Your task to perform on an android device: stop showing notifications on the lock screen Image 0: 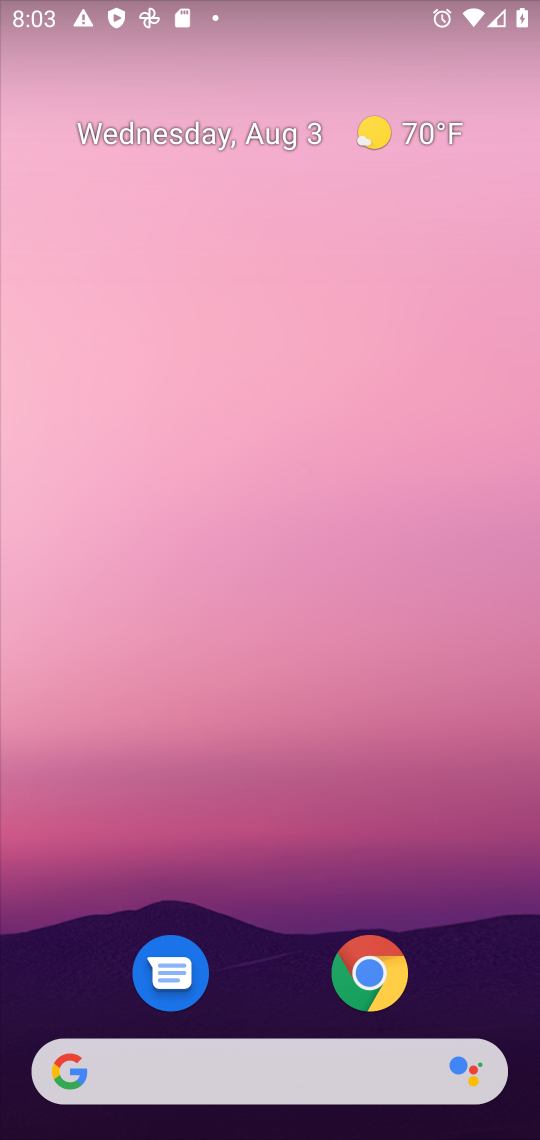
Step 0: drag from (212, 563) to (223, 174)
Your task to perform on an android device: stop showing notifications on the lock screen Image 1: 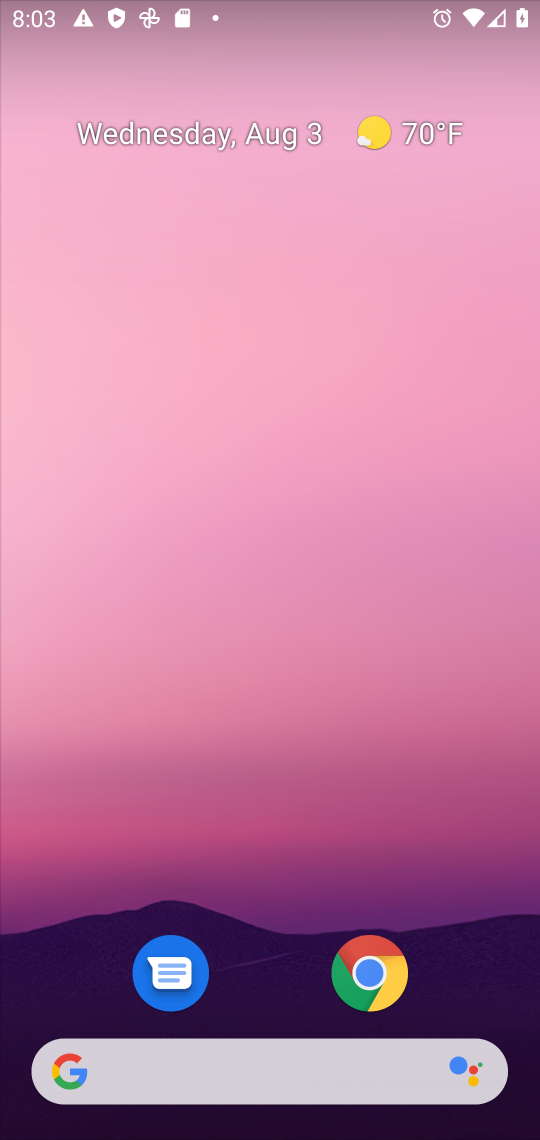
Step 1: drag from (246, 845) to (33, 88)
Your task to perform on an android device: stop showing notifications on the lock screen Image 2: 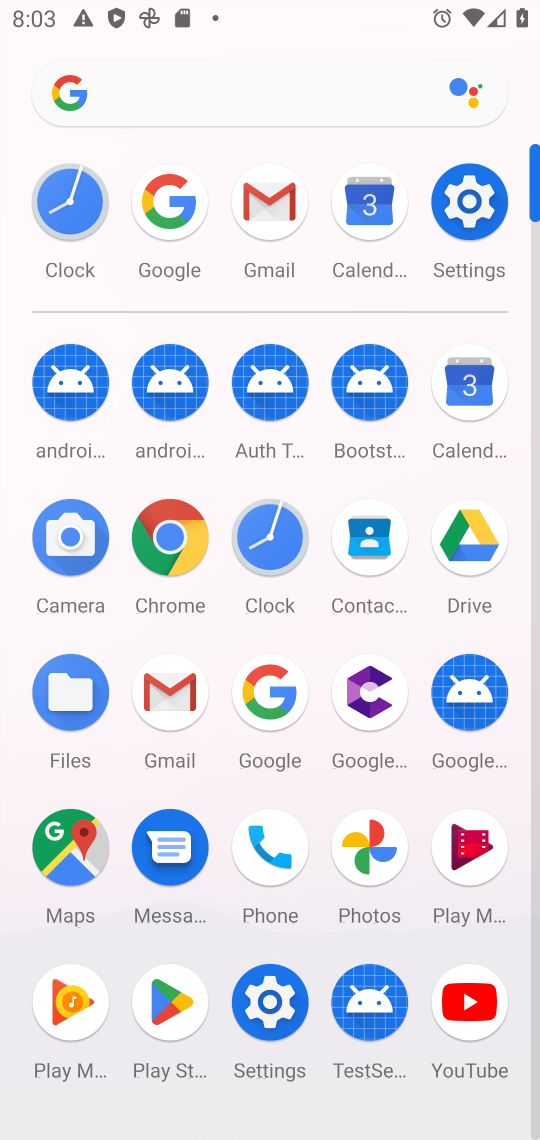
Step 2: click (463, 194)
Your task to perform on an android device: stop showing notifications on the lock screen Image 3: 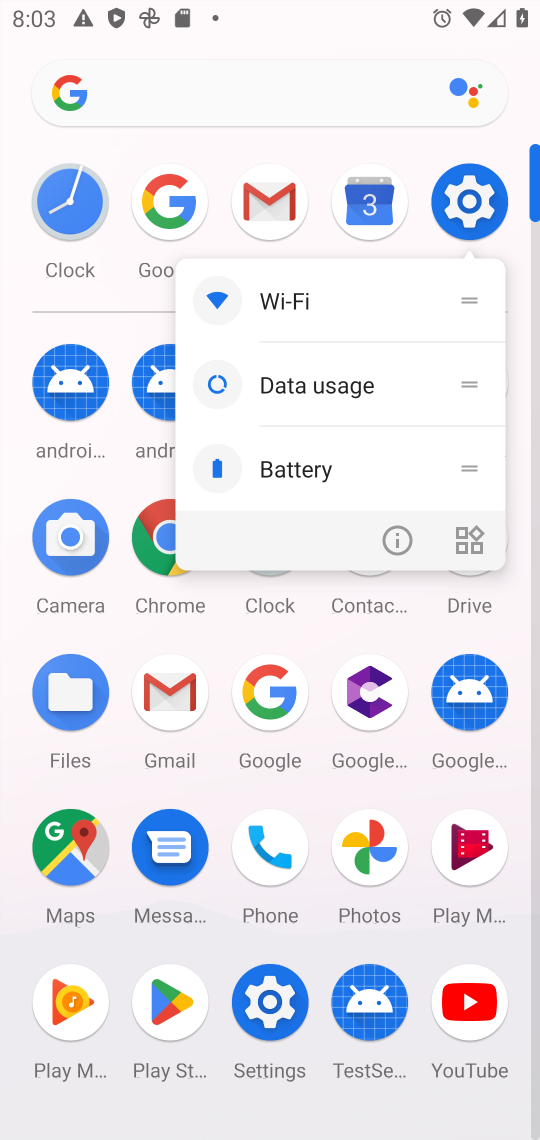
Step 3: click (461, 208)
Your task to perform on an android device: stop showing notifications on the lock screen Image 4: 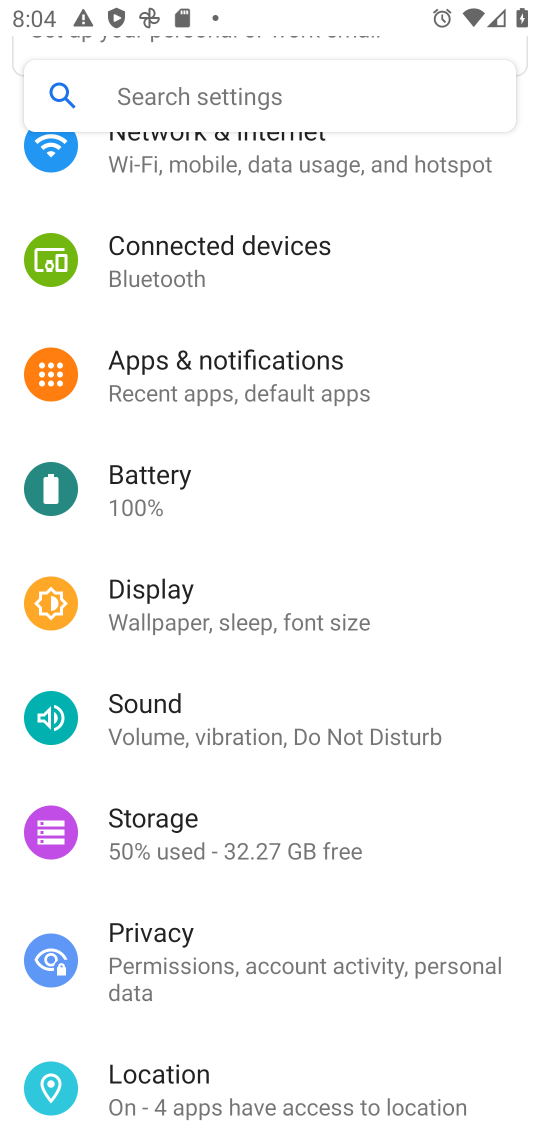
Step 4: click (309, 371)
Your task to perform on an android device: stop showing notifications on the lock screen Image 5: 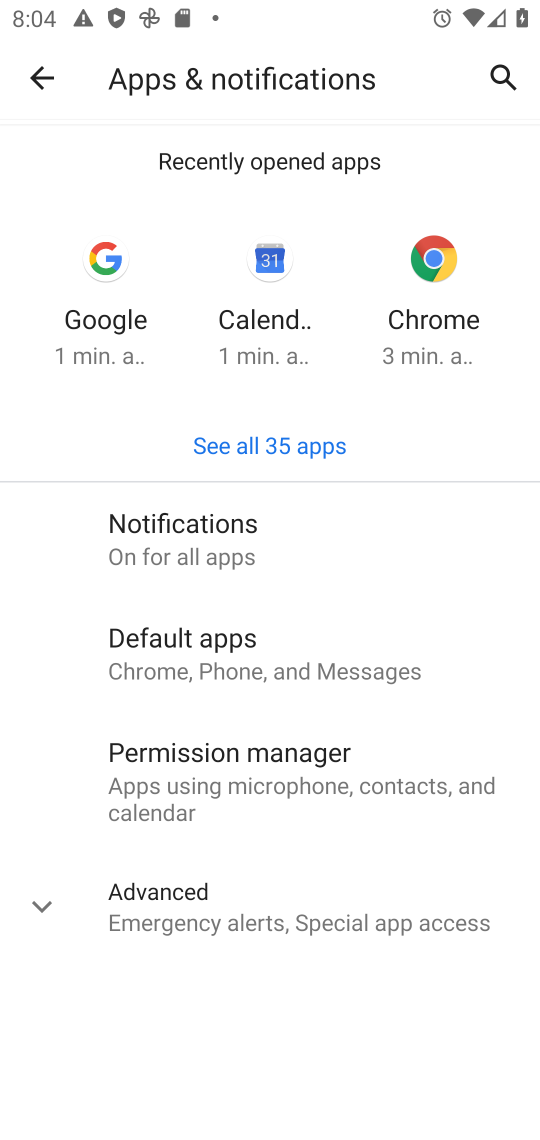
Step 5: click (186, 549)
Your task to perform on an android device: stop showing notifications on the lock screen Image 6: 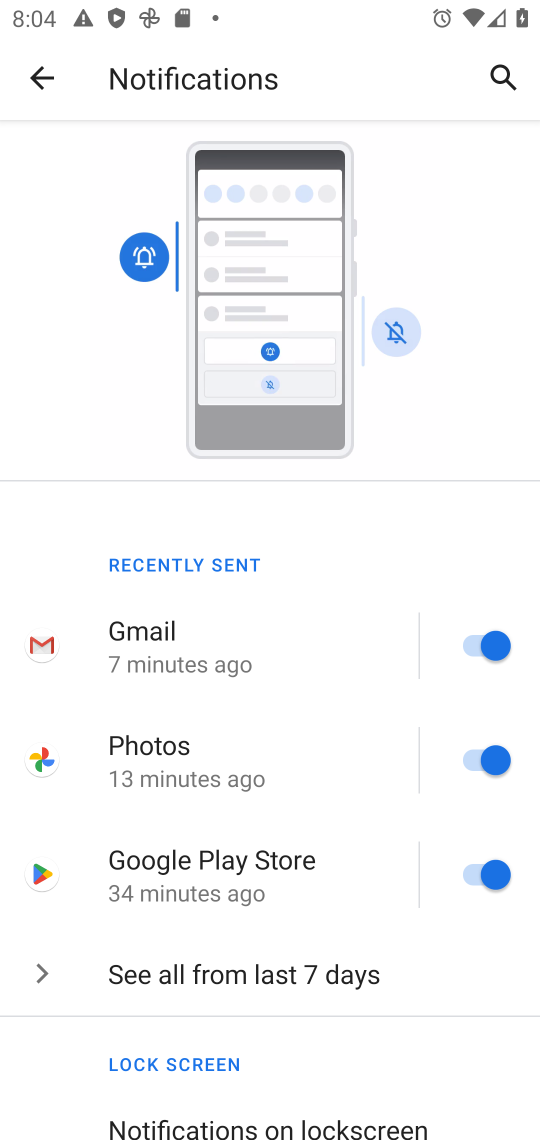
Step 6: click (127, 1129)
Your task to perform on an android device: stop showing notifications on the lock screen Image 7: 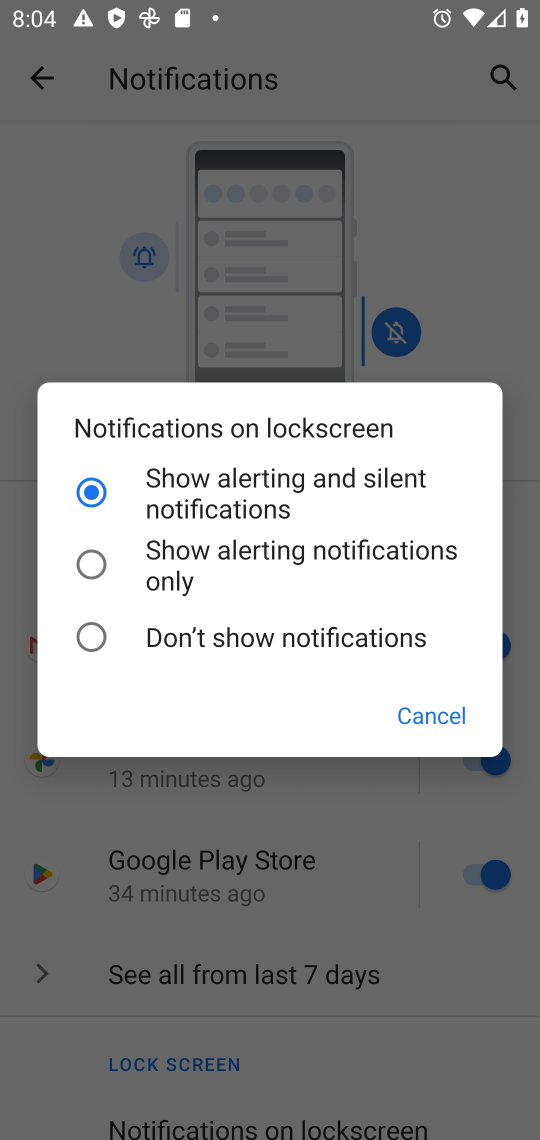
Step 7: click (89, 641)
Your task to perform on an android device: stop showing notifications on the lock screen Image 8: 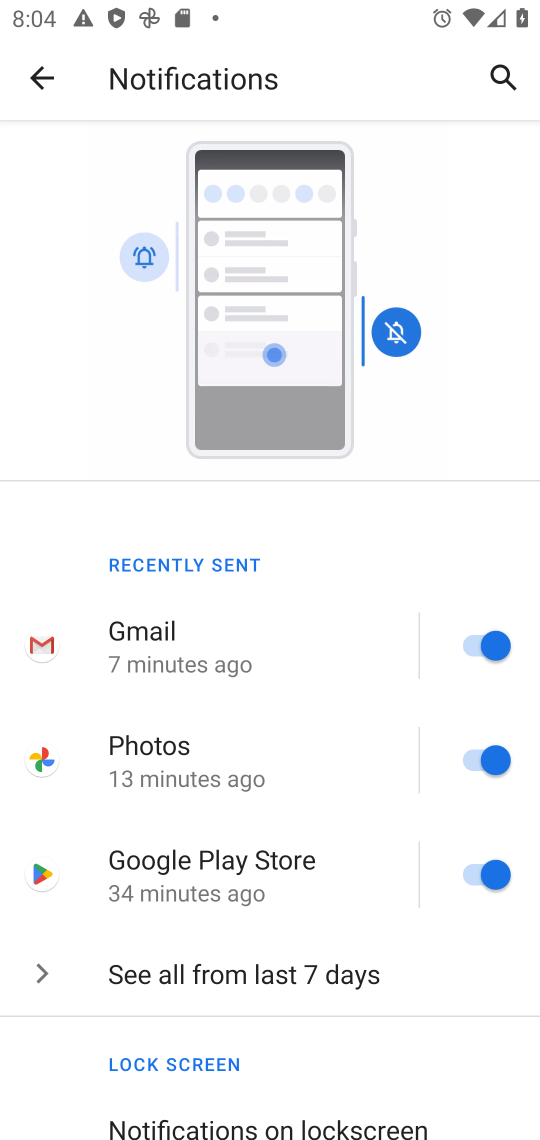
Step 8: task complete